Your task to perform on an android device: Open the calendar app, open the side menu, and click the "Day" option Image 0: 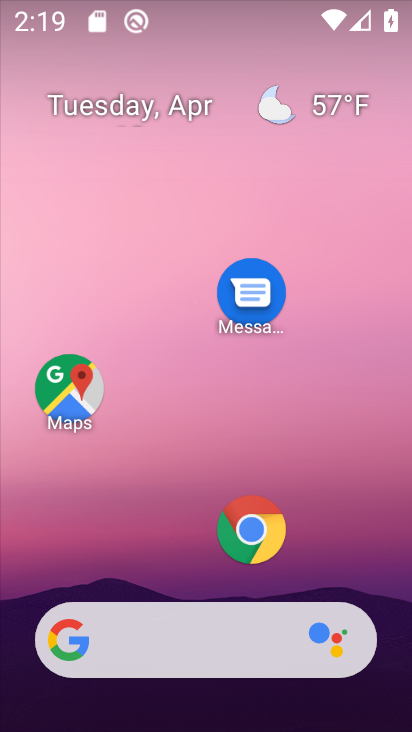
Step 0: drag from (158, 541) to (207, 127)
Your task to perform on an android device: Open the calendar app, open the side menu, and click the "Day" option Image 1: 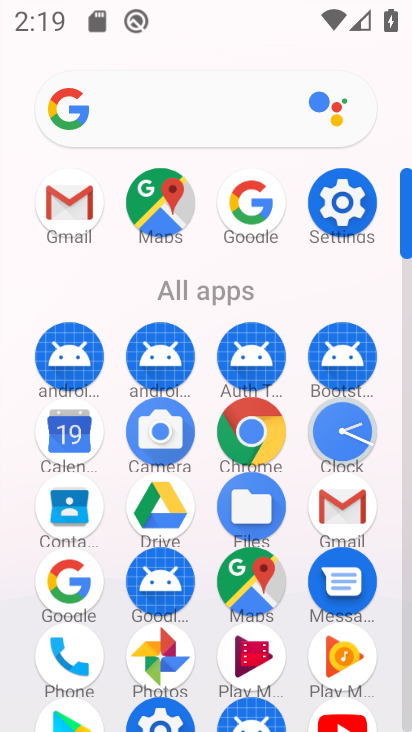
Step 1: click (71, 430)
Your task to perform on an android device: Open the calendar app, open the side menu, and click the "Day" option Image 2: 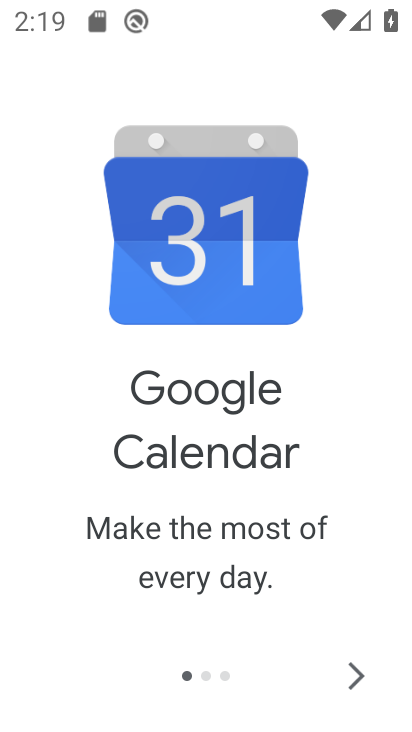
Step 2: click (346, 673)
Your task to perform on an android device: Open the calendar app, open the side menu, and click the "Day" option Image 3: 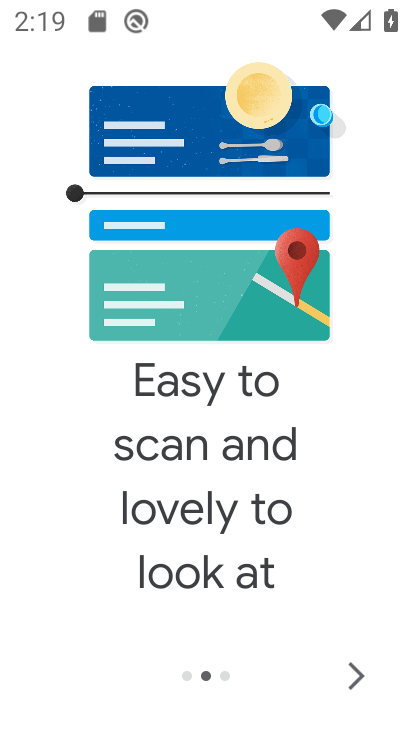
Step 3: click (346, 673)
Your task to perform on an android device: Open the calendar app, open the side menu, and click the "Day" option Image 4: 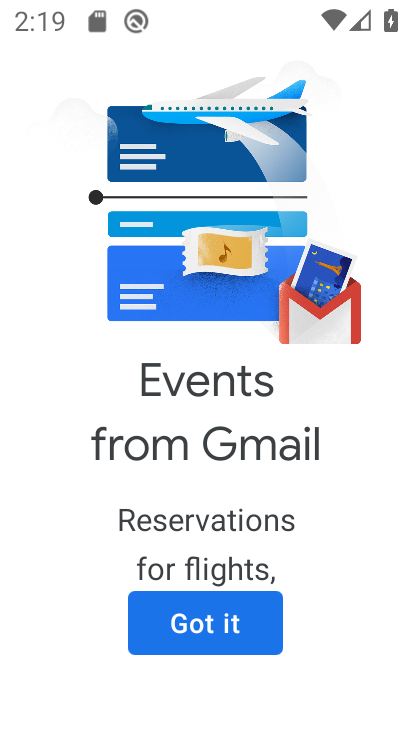
Step 4: click (197, 624)
Your task to perform on an android device: Open the calendar app, open the side menu, and click the "Day" option Image 5: 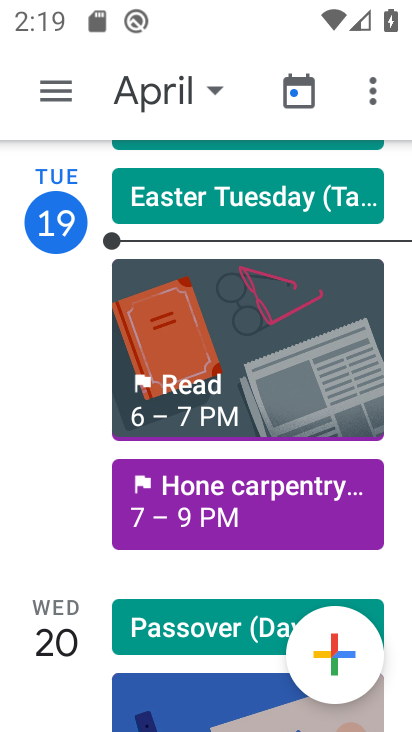
Step 5: click (57, 93)
Your task to perform on an android device: Open the calendar app, open the side menu, and click the "Day" option Image 6: 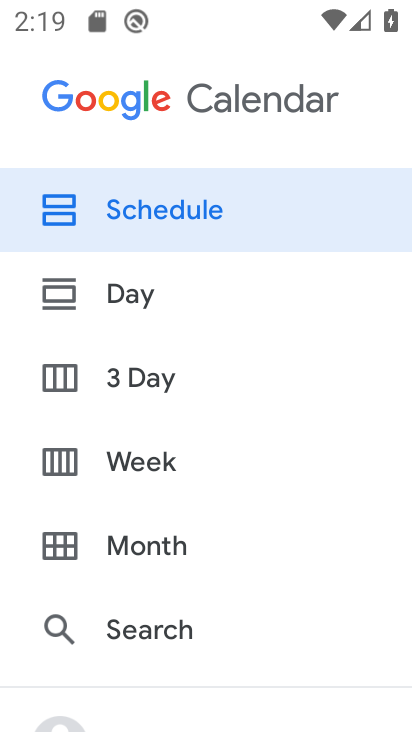
Step 6: click (153, 317)
Your task to perform on an android device: Open the calendar app, open the side menu, and click the "Day" option Image 7: 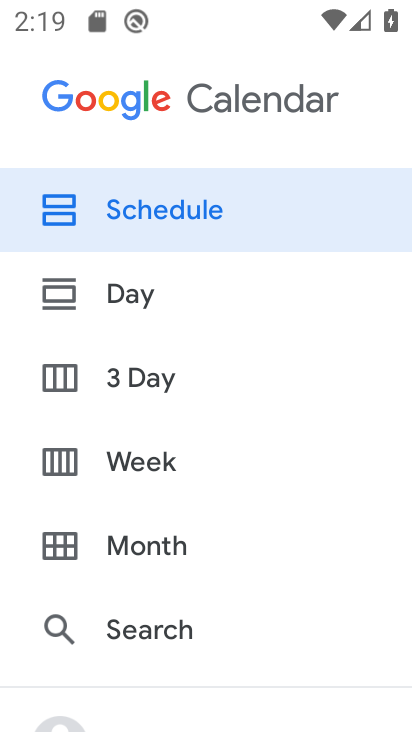
Step 7: click (118, 293)
Your task to perform on an android device: Open the calendar app, open the side menu, and click the "Day" option Image 8: 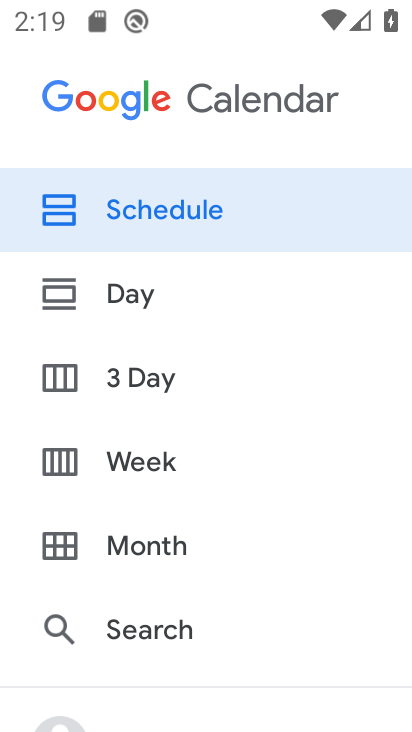
Step 8: click (61, 291)
Your task to perform on an android device: Open the calendar app, open the side menu, and click the "Day" option Image 9: 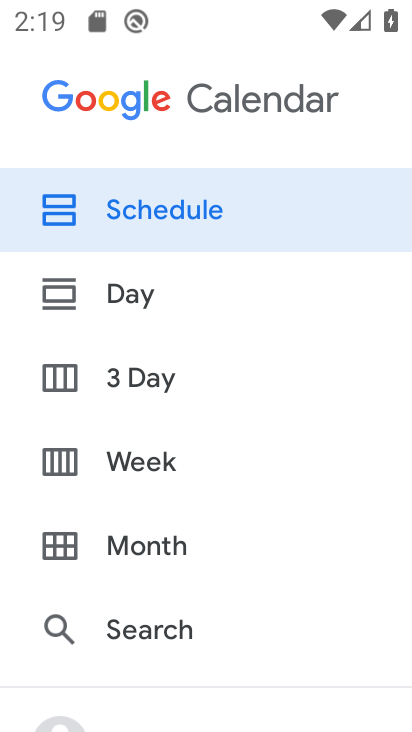
Step 9: click (118, 291)
Your task to perform on an android device: Open the calendar app, open the side menu, and click the "Day" option Image 10: 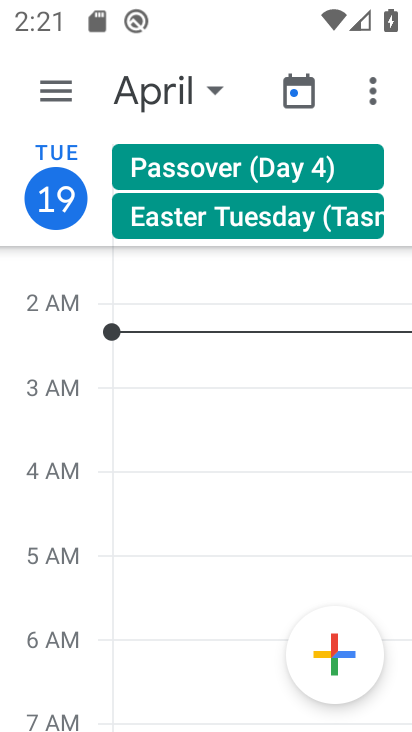
Step 10: task complete